Your task to perform on an android device: Is it going to rain this weekend? Image 0: 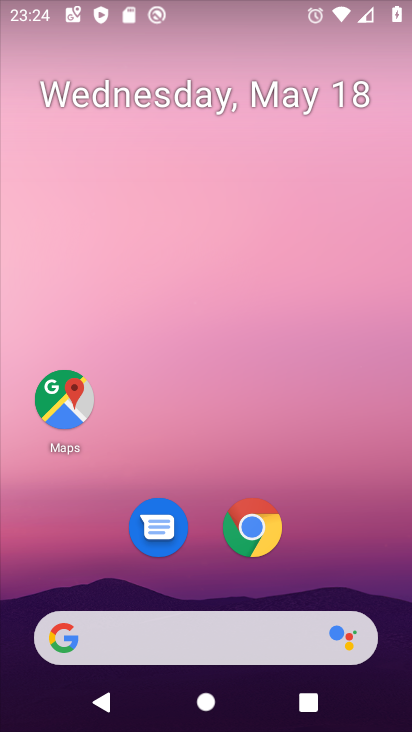
Step 0: click (250, 638)
Your task to perform on an android device: Is it going to rain this weekend? Image 1: 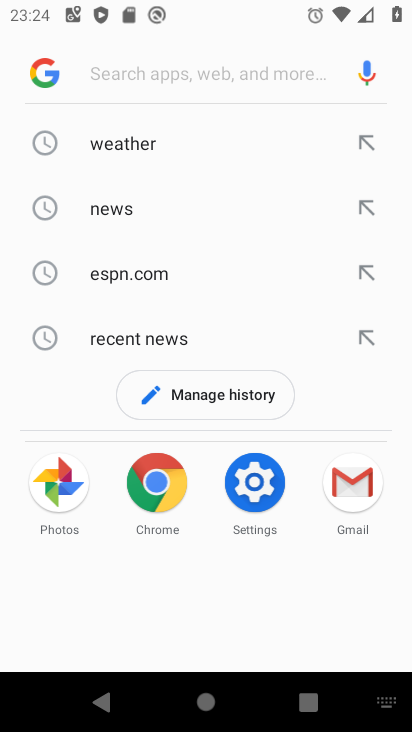
Step 1: click (119, 156)
Your task to perform on an android device: Is it going to rain this weekend? Image 2: 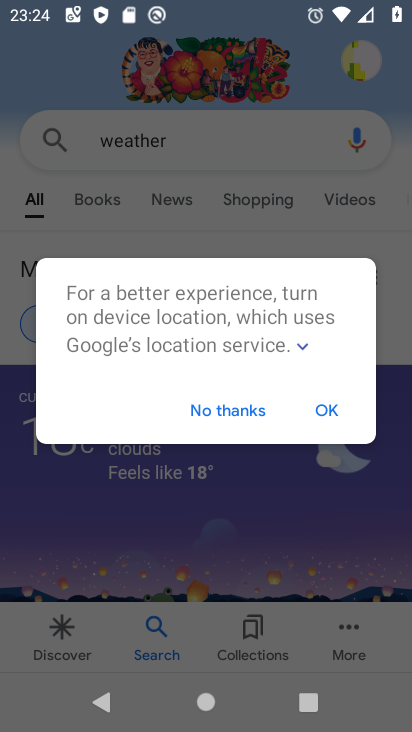
Step 2: click (320, 408)
Your task to perform on an android device: Is it going to rain this weekend? Image 3: 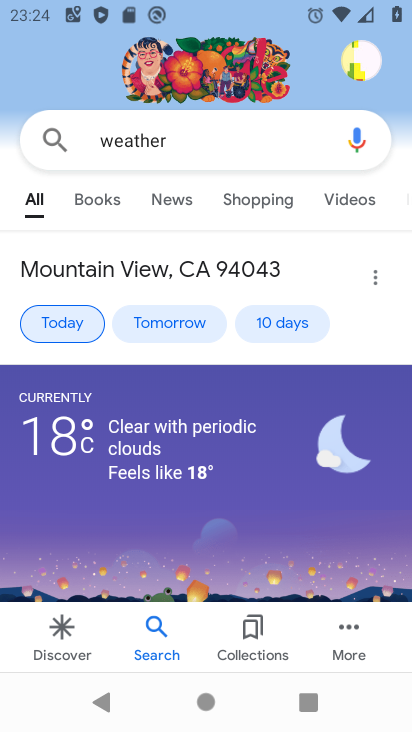
Step 3: click (281, 329)
Your task to perform on an android device: Is it going to rain this weekend? Image 4: 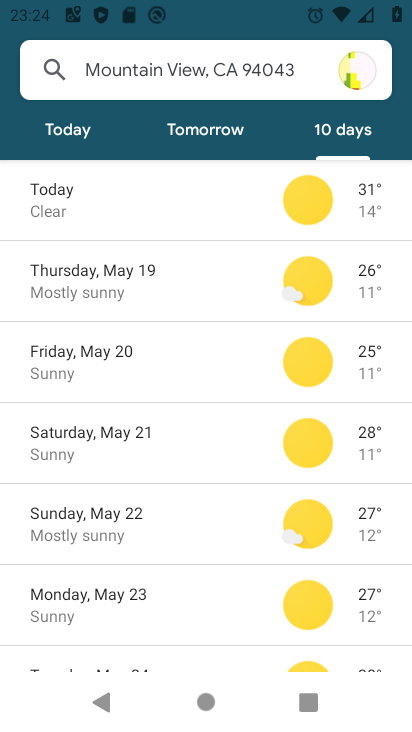
Step 4: task complete